Your task to perform on an android device: Open Google Chrome and open the bookmarks view Image 0: 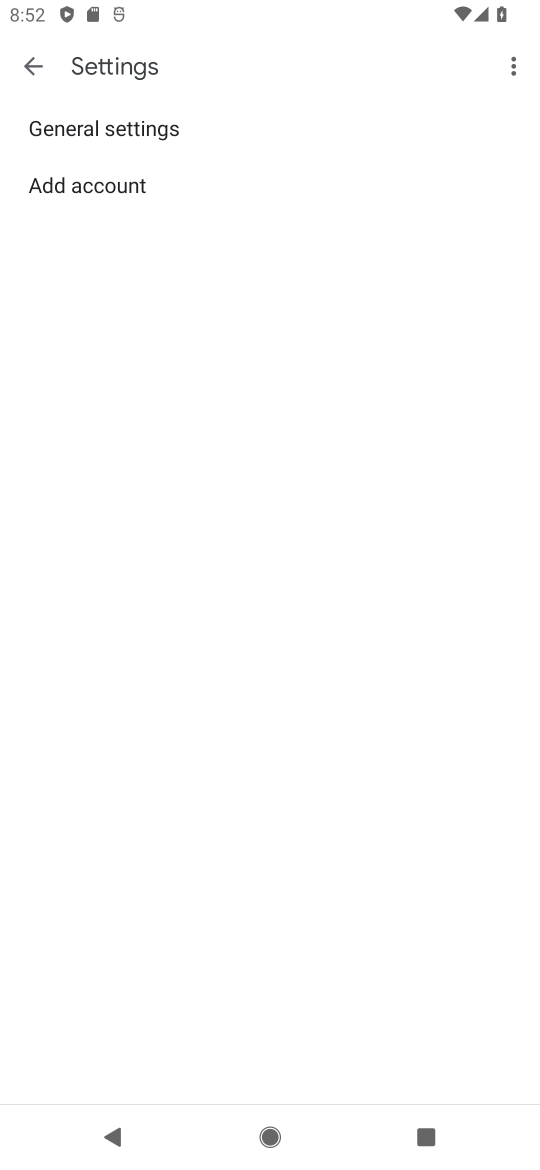
Step 0: press back button
Your task to perform on an android device: Open Google Chrome and open the bookmarks view Image 1: 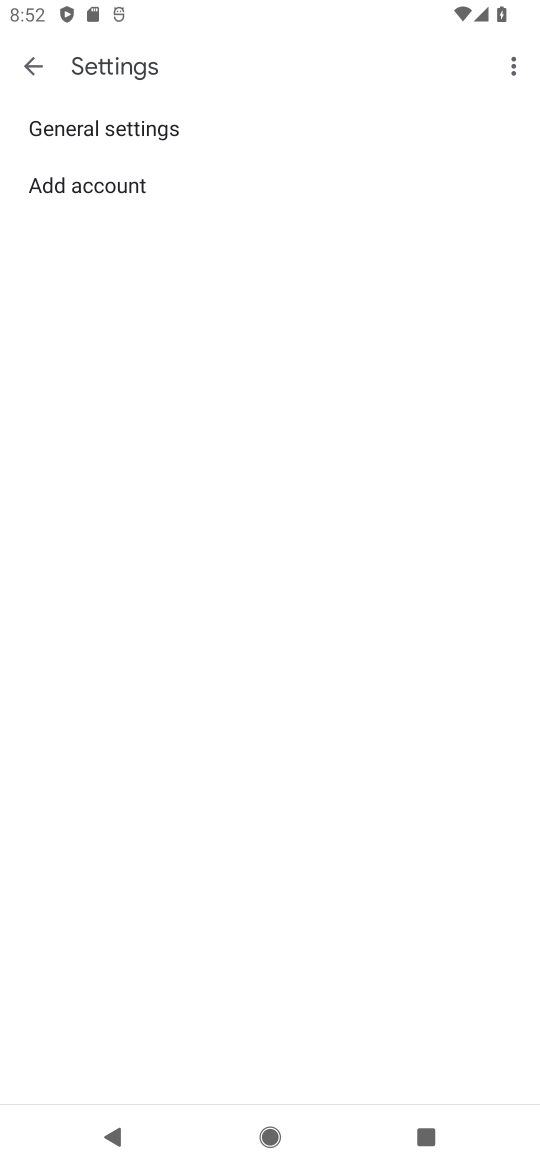
Step 1: press back button
Your task to perform on an android device: Open Google Chrome and open the bookmarks view Image 2: 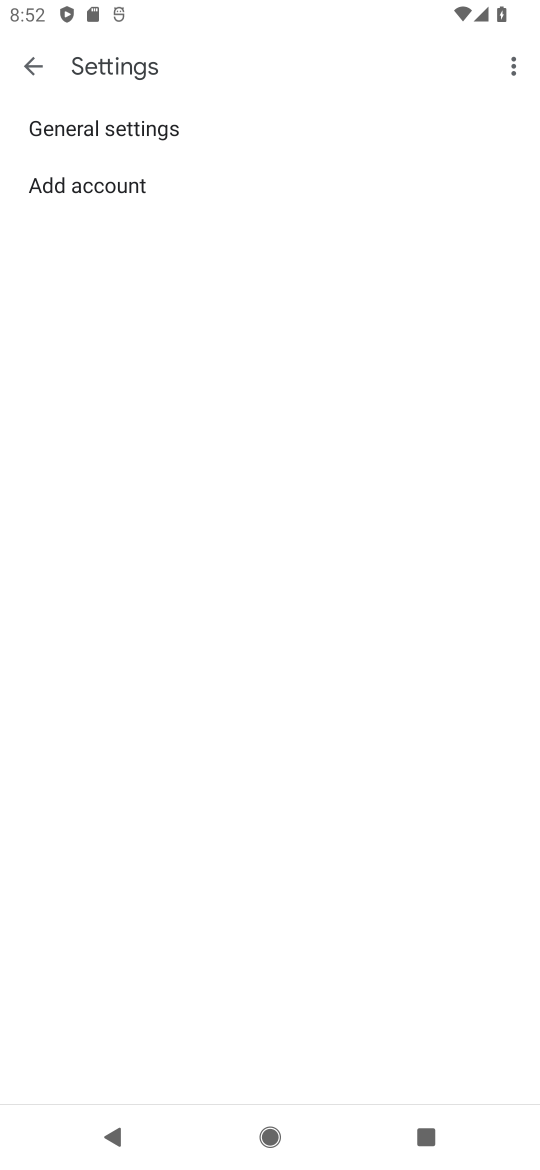
Step 2: press back button
Your task to perform on an android device: Open Google Chrome and open the bookmarks view Image 3: 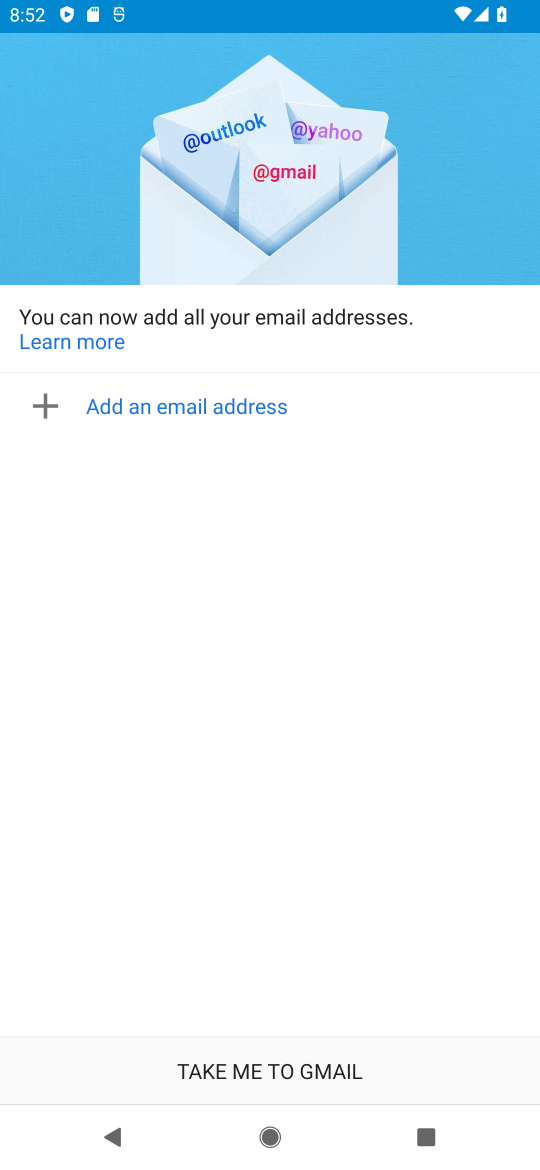
Step 3: press back button
Your task to perform on an android device: Open Google Chrome and open the bookmarks view Image 4: 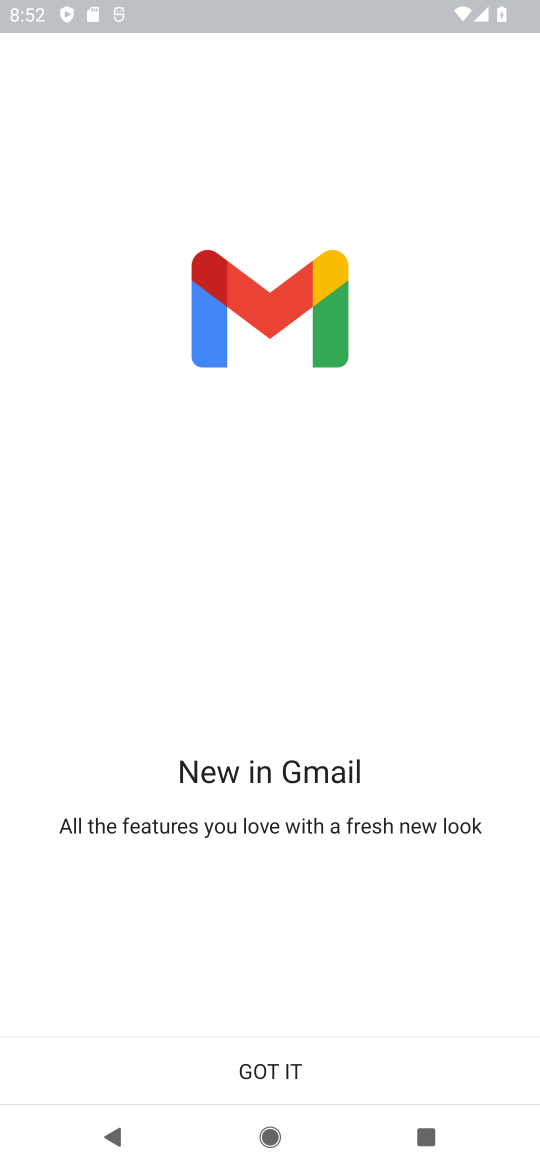
Step 4: press back button
Your task to perform on an android device: Open Google Chrome and open the bookmarks view Image 5: 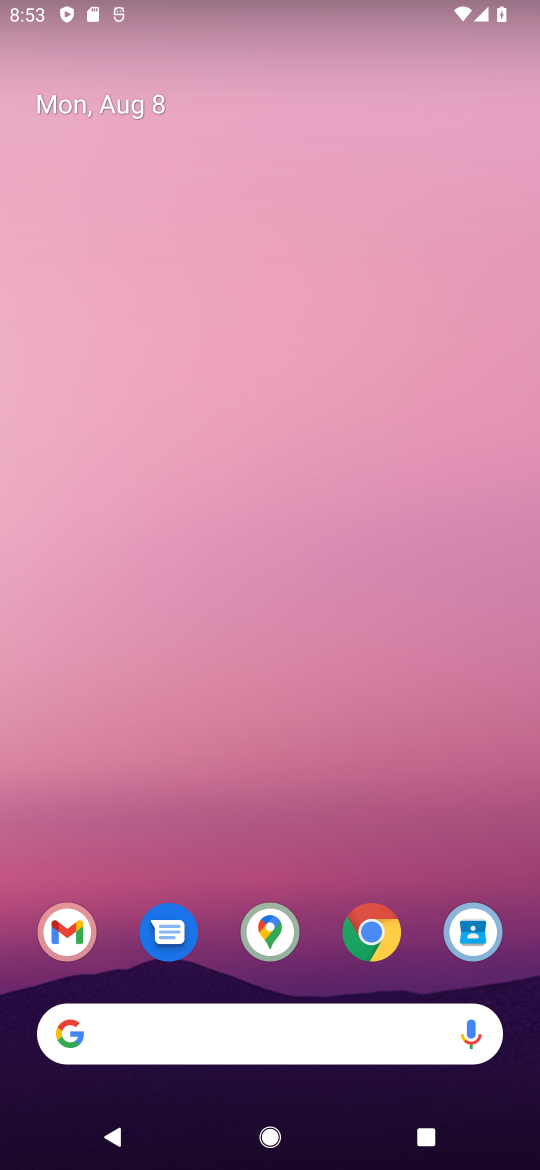
Step 5: click (349, 916)
Your task to perform on an android device: Open Google Chrome and open the bookmarks view Image 6: 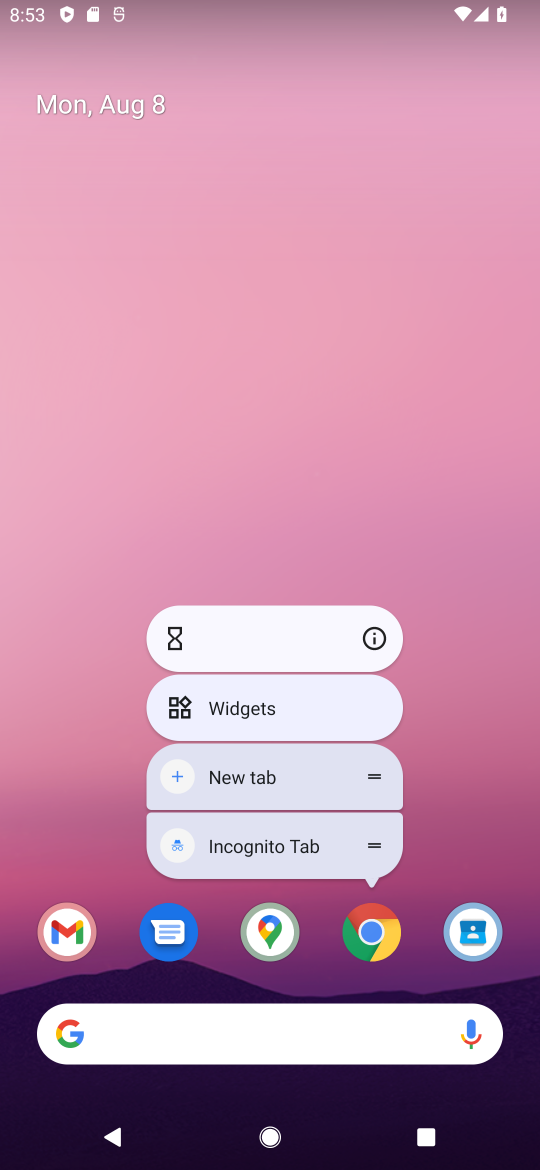
Step 6: click (365, 939)
Your task to perform on an android device: Open Google Chrome and open the bookmarks view Image 7: 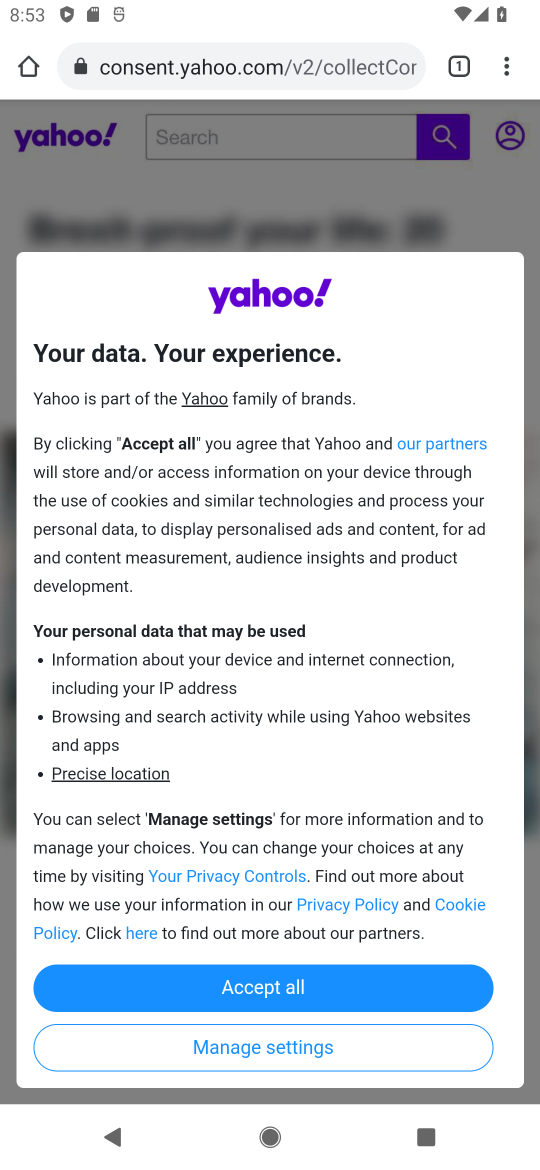
Step 7: click (371, 942)
Your task to perform on an android device: Open Google Chrome and open the bookmarks view Image 8: 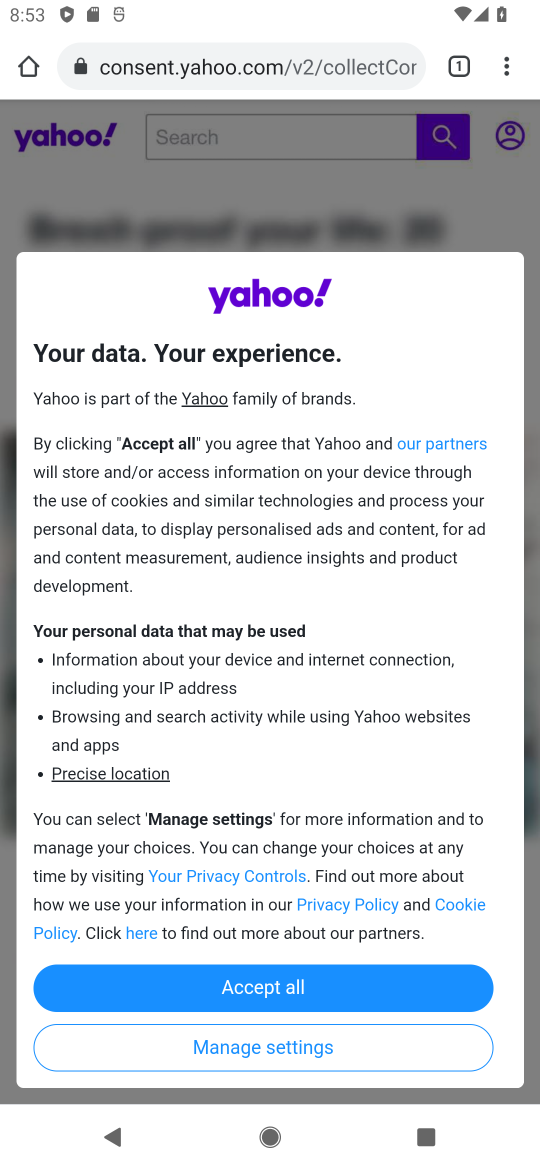
Step 8: task complete